Your task to perform on an android device: Open Reddit.com Image 0: 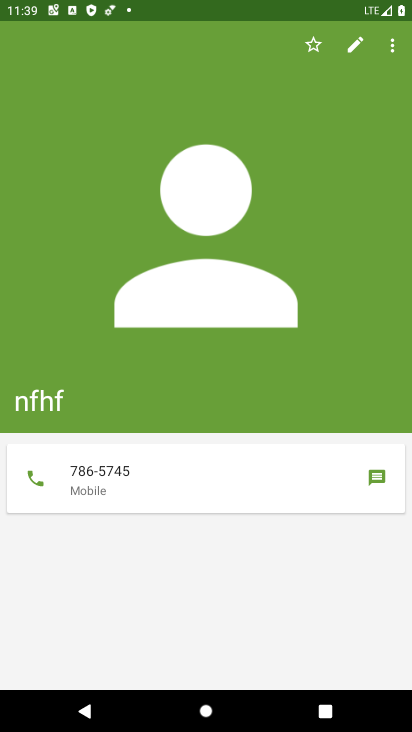
Step 0: press home button
Your task to perform on an android device: Open Reddit.com Image 1: 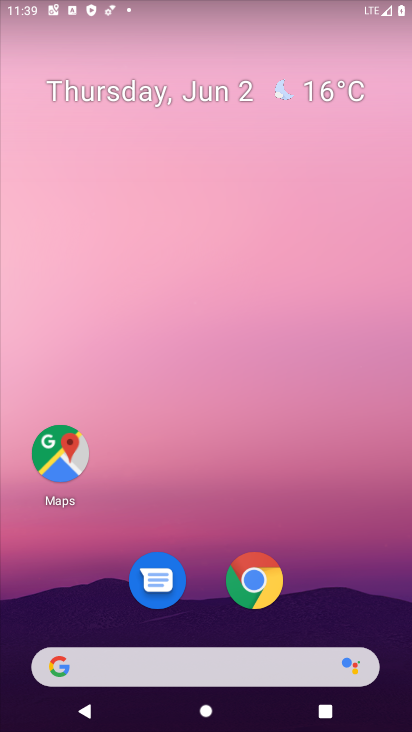
Step 1: click (258, 591)
Your task to perform on an android device: Open Reddit.com Image 2: 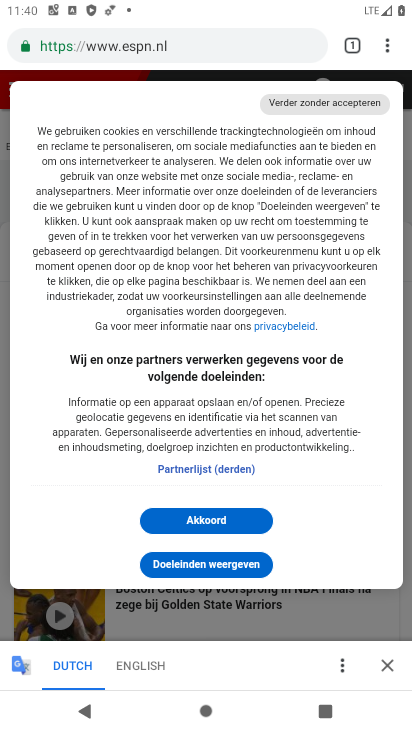
Step 2: click (217, 45)
Your task to perform on an android device: Open Reddit.com Image 3: 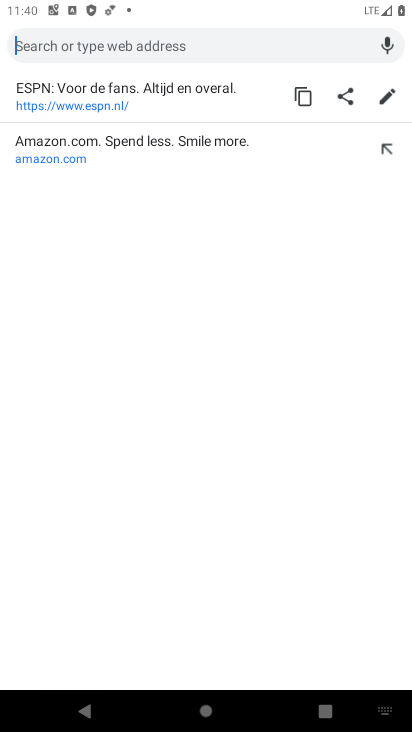
Step 3: type "reddit"
Your task to perform on an android device: Open Reddit.com Image 4: 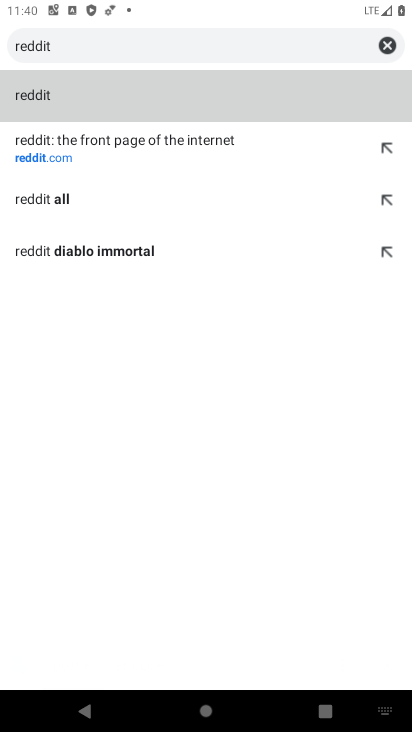
Step 4: click (262, 148)
Your task to perform on an android device: Open Reddit.com Image 5: 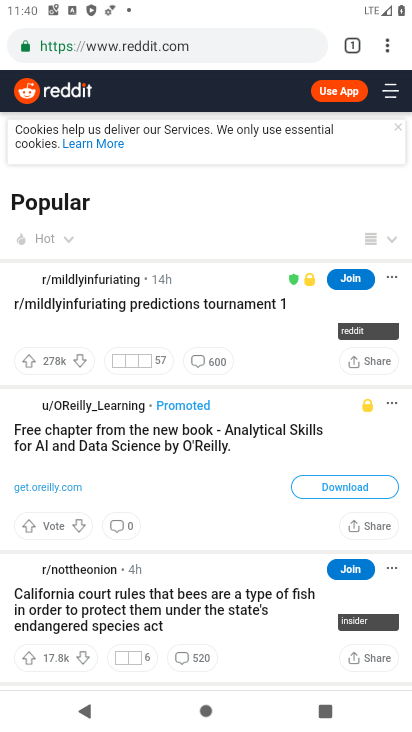
Step 5: task complete